Your task to perform on an android device: refresh tabs in the chrome app Image 0: 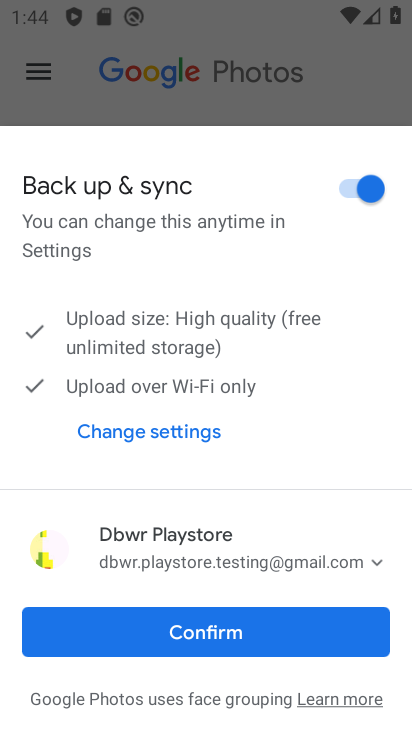
Step 0: press home button
Your task to perform on an android device: refresh tabs in the chrome app Image 1: 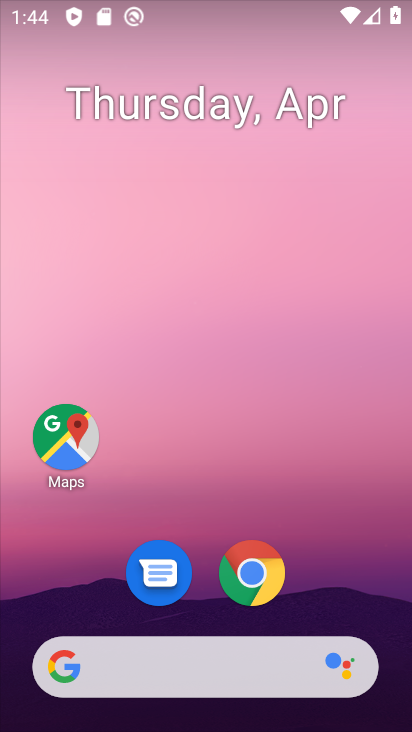
Step 1: drag from (347, 590) to (244, 65)
Your task to perform on an android device: refresh tabs in the chrome app Image 2: 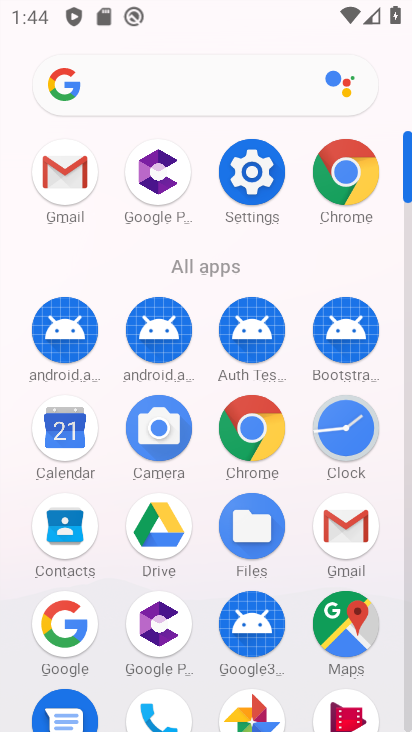
Step 2: click (268, 422)
Your task to perform on an android device: refresh tabs in the chrome app Image 3: 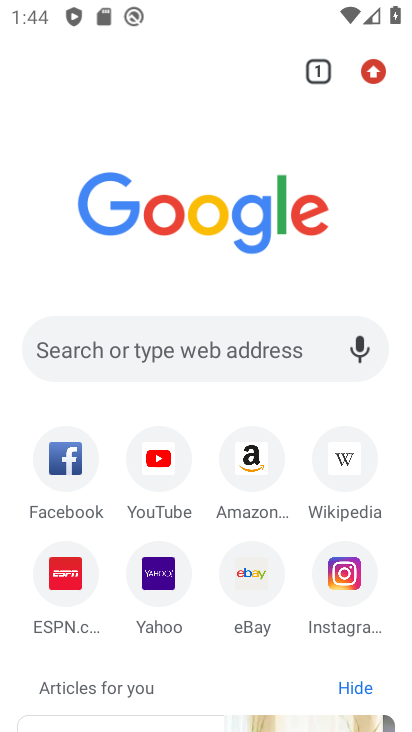
Step 3: click (372, 76)
Your task to perform on an android device: refresh tabs in the chrome app Image 4: 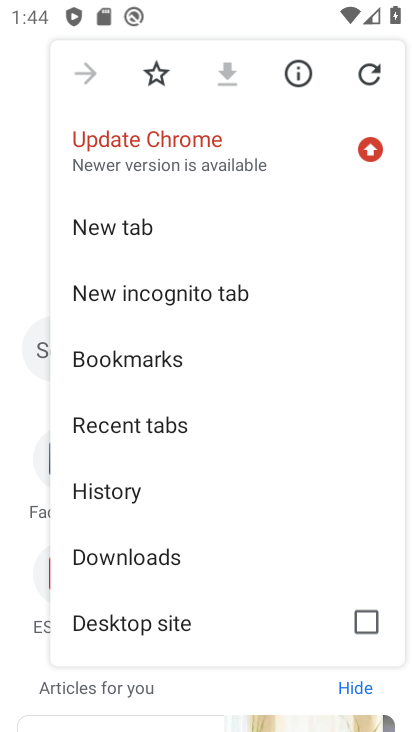
Step 4: click (372, 76)
Your task to perform on an android device: refresh tabs in the chrome app Image 5: 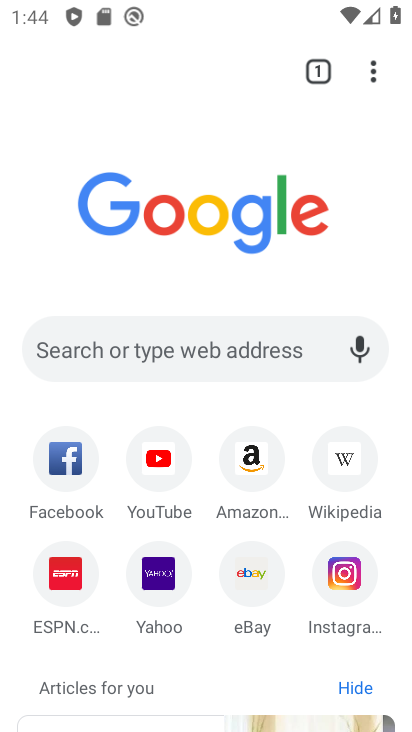
Step 5: task complete